Your task to perform on an android device: What's on my calendar today? Image 0: 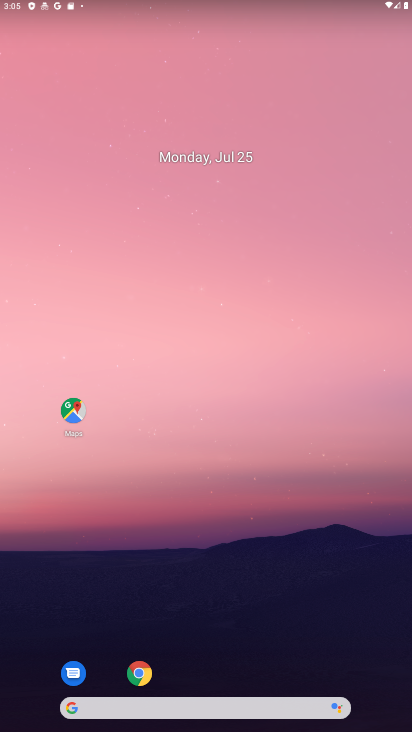
Step 0: drag from (266, 562) to (330, 202)
Your task to perform on an android device: What's on my calendar today? Image 1: 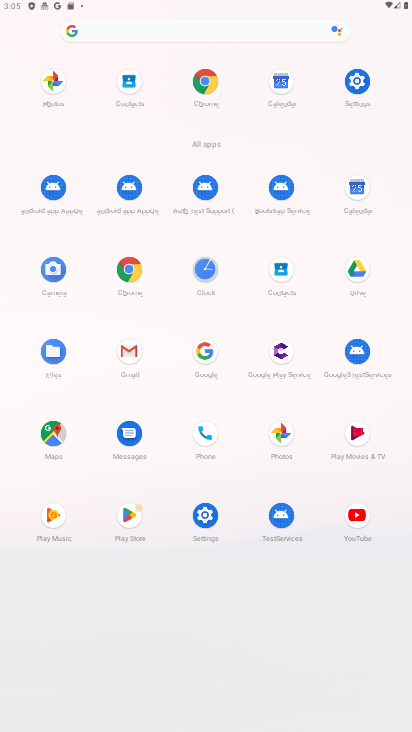
Step 1: click (354, 192)
Your task to perform on an android device: What's on my calendar today? Image 2: 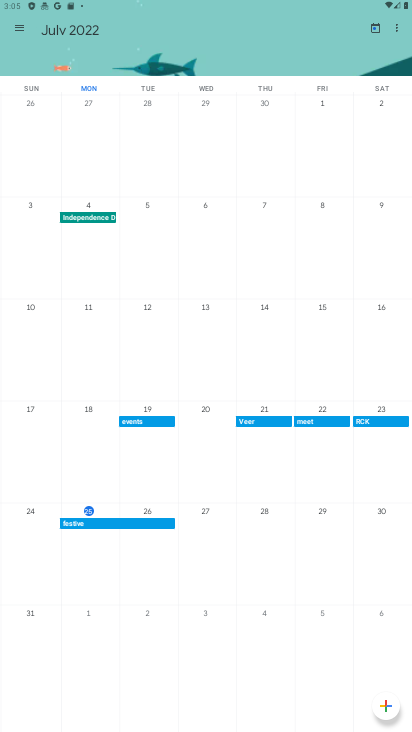
Step 2: task complete